Your task to perform on an android device: What's on my calendar today? Image 0: 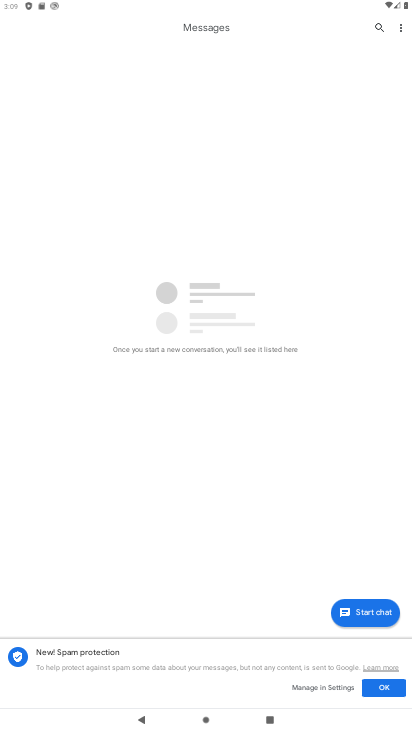
Step 0: press home button
Your task to perform on an android device: What's on my calendar today? Image 1: 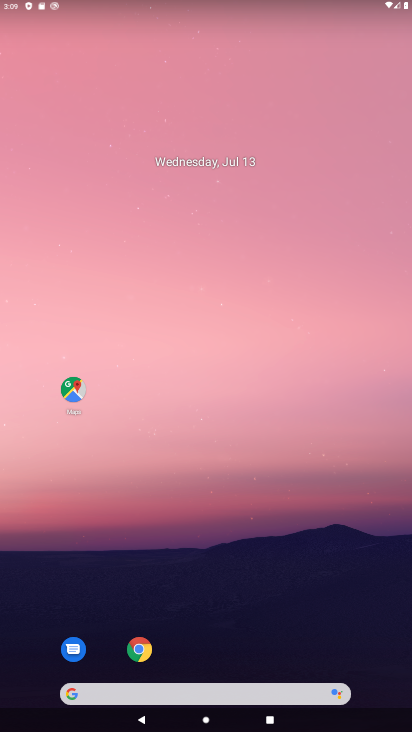
Step 1: drag from (274, 672) to (308, 327)
Your task to perform on an android device: What's on my calendar today? Image 2: 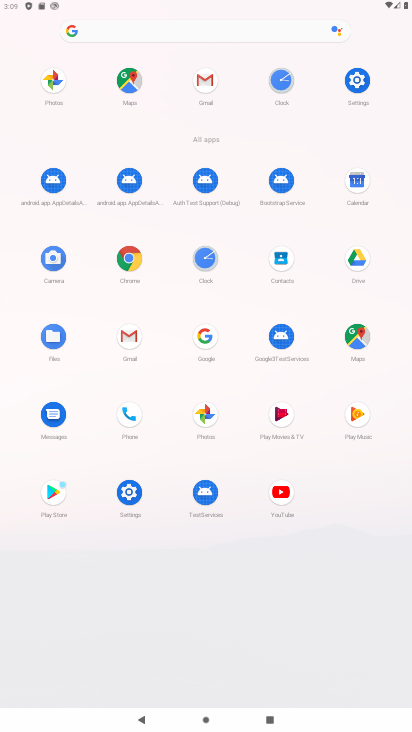
Step 2: click (346, 178)
Your task to perform on an android device: What's on my calendar today? Image 3: 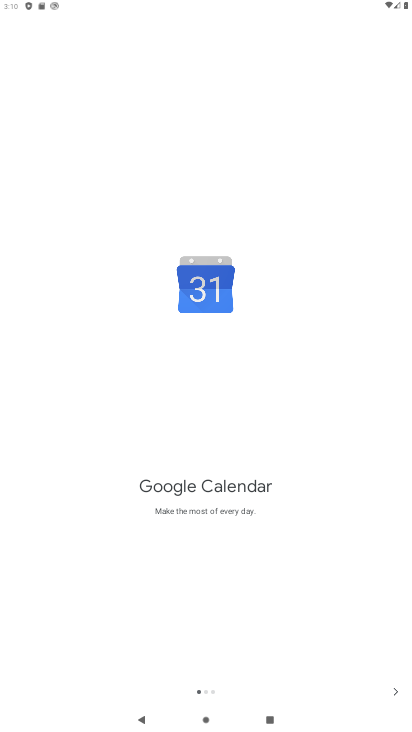
Step 3: click (395, 694)
Your task to perform on an android device: What's on my calendar today? Image 4: 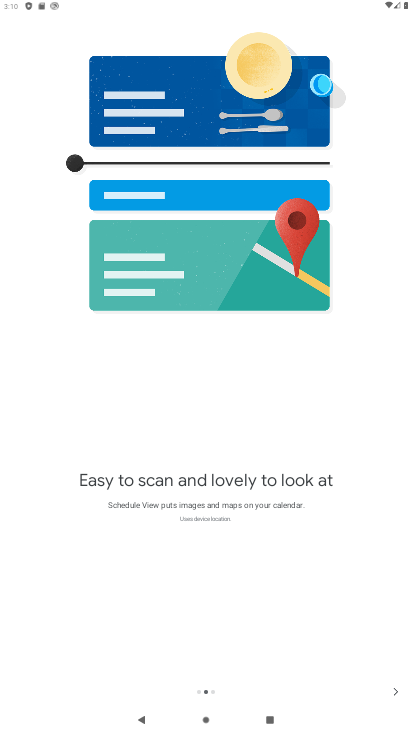
Step 4: click (395, 685)
Your task to perform on an android device: What's on my calendar today? Image 5: 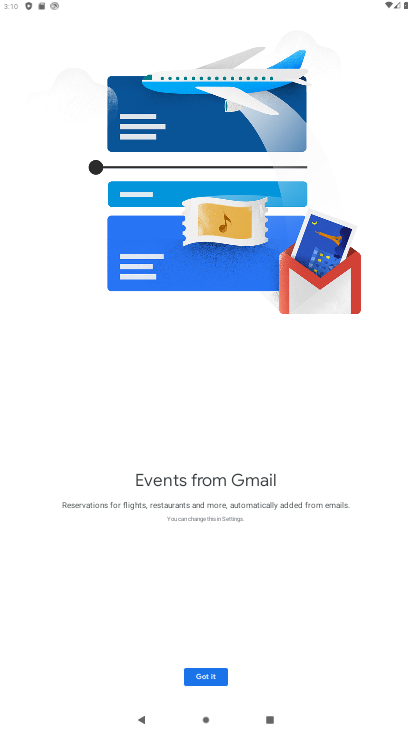
Step 5: click (209, 683)
Your task to perform on an android device: What's on my calendar today? Image 6: 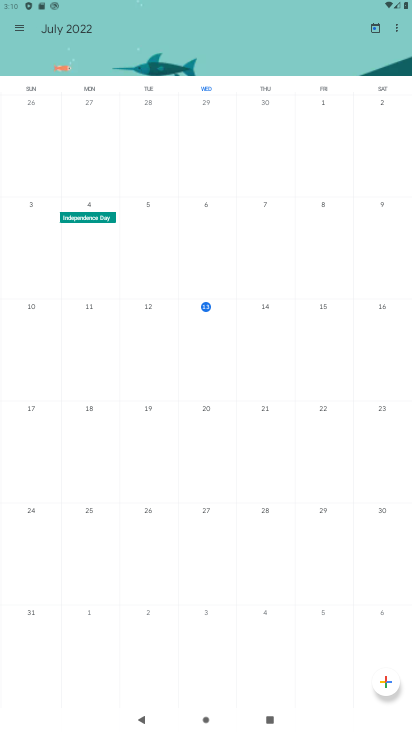
Step 6: click (199, 336)
Your task to perform on an android device: What's on my calendar today? Image 7: 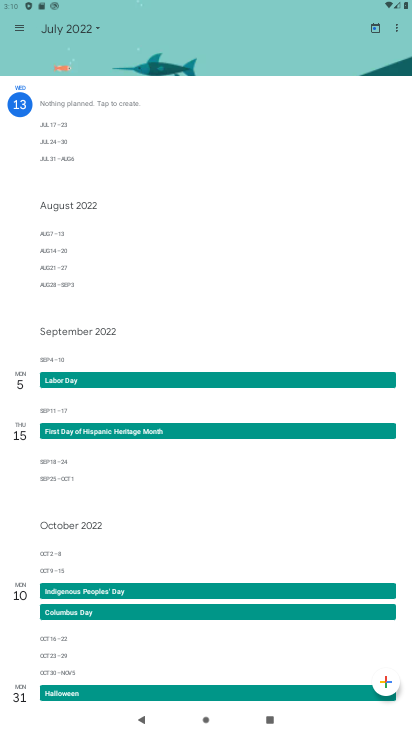
Step 7: task complete